Your task to perform on an android device: Open the web browser Image 0: 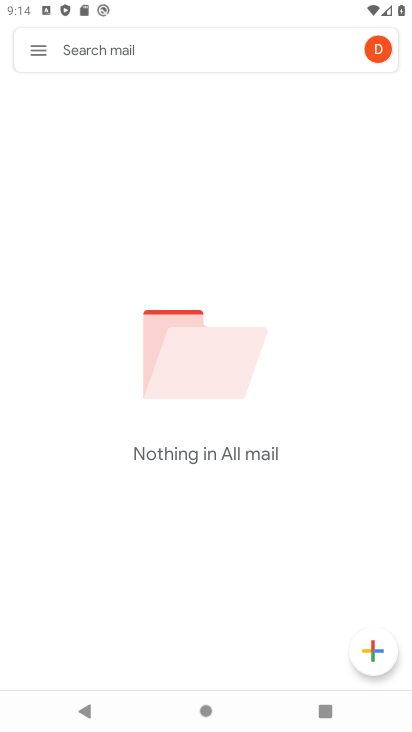
Step 0: task impossible